Your task to perform on an android device: Play the last video I watched on Youtube Image 0: 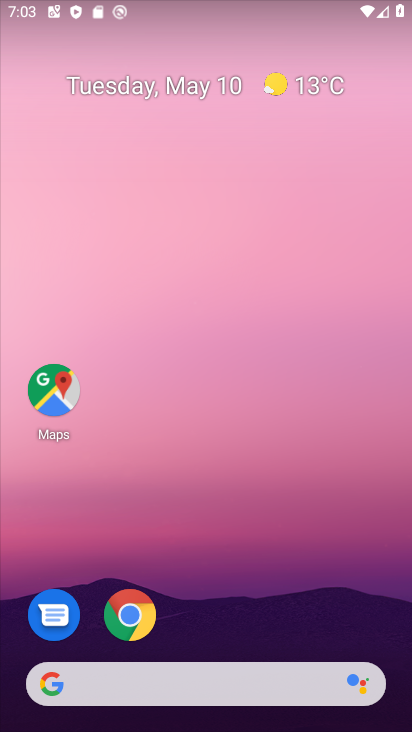
Step 0: drag from (298, 590) to (246, 18)
Your task to perform on an android device: Play the last video I watched on Youtube Image 1: 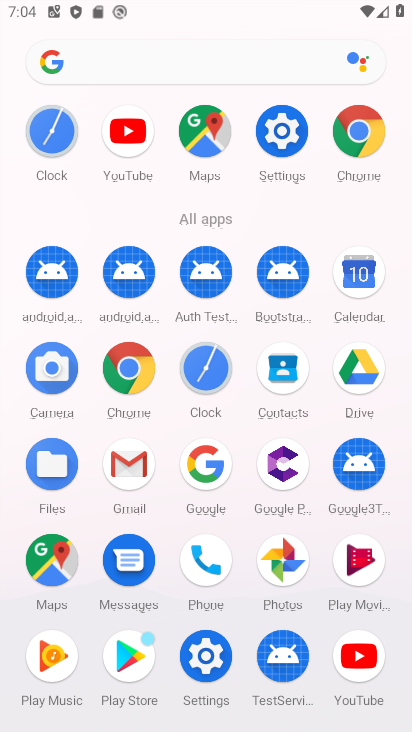
Step 1: click (114, 150)
Your task to perform on an android device: Play the last video I watched on Youtube Image 2: 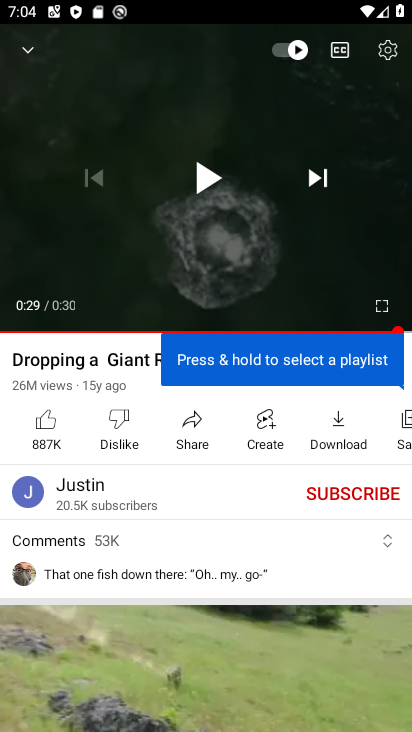
Step 2: click (195, 173)
Your task to perform on an android device: Play the last video I watched on Youtube Image 3: 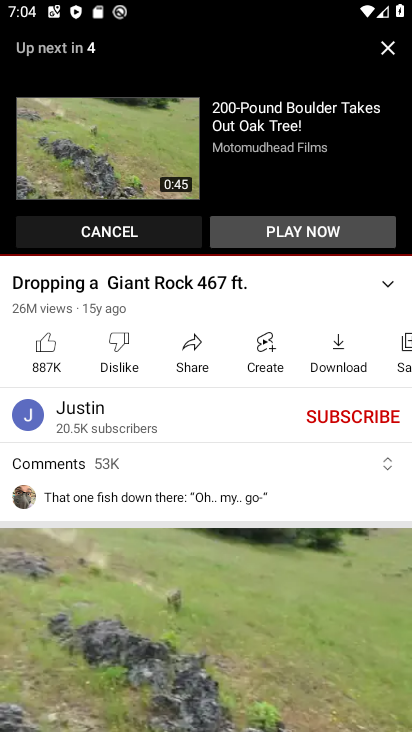
Step 3: task complete